Your task to perform on an android device: toggle translation in the chrome app Image 0: 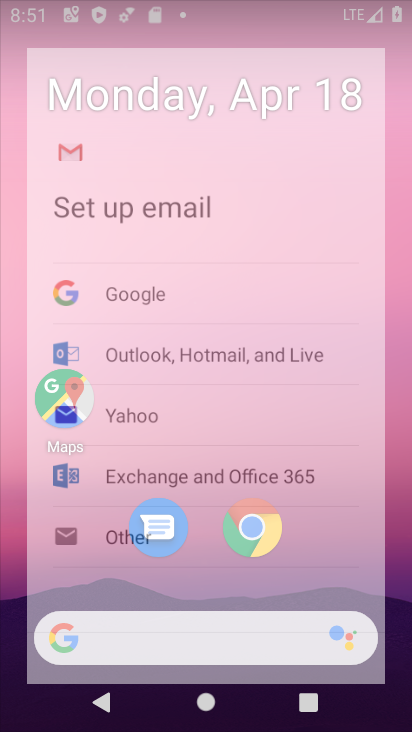
Step 0: drag from (328, 446) to (281, 47)
Your task to perform on an android device: toggle translation in the chrome app Image 1: 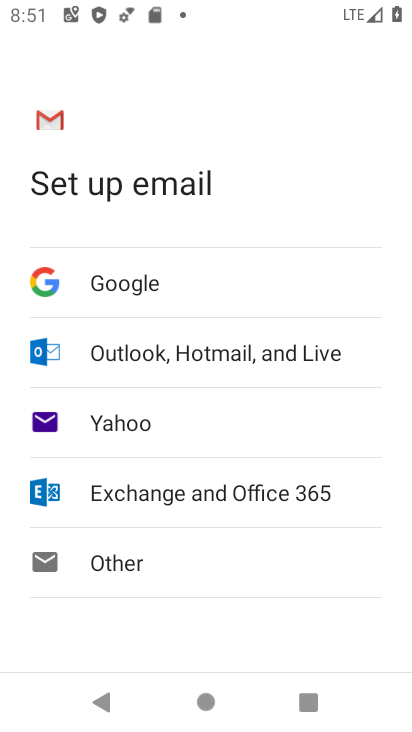
Step 1: press back button
Your task to perform on an android device: toggle translation in the chrome app Image 2: 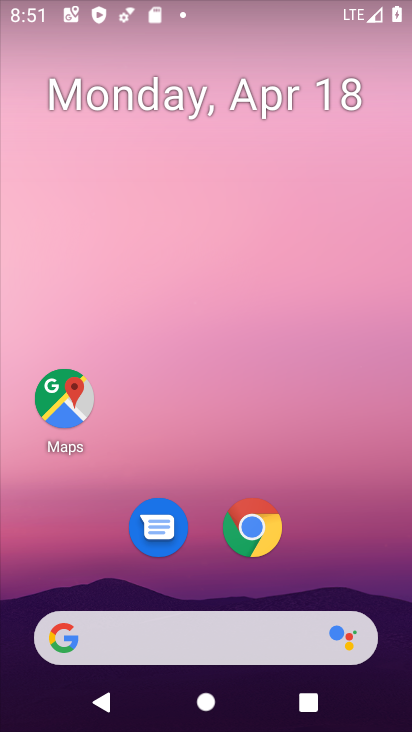
Step 2: click (256, 525)
Your task to perform on an android device: toggle translation in the chrome app Image 3: 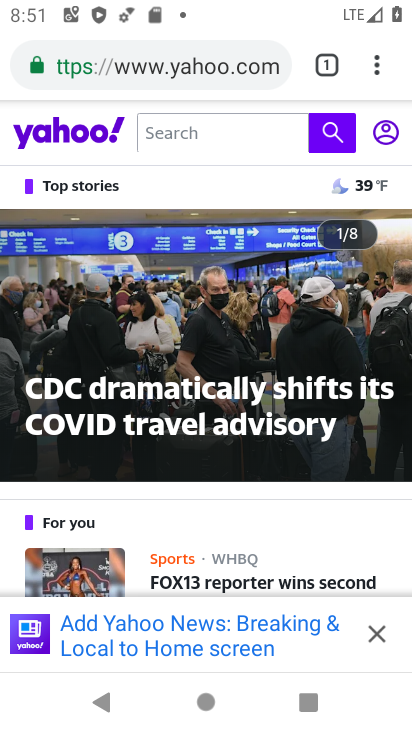
Step 3: click (375, 69)
Your task to perform on an android device: toggle translation in the chrome app Image 4: 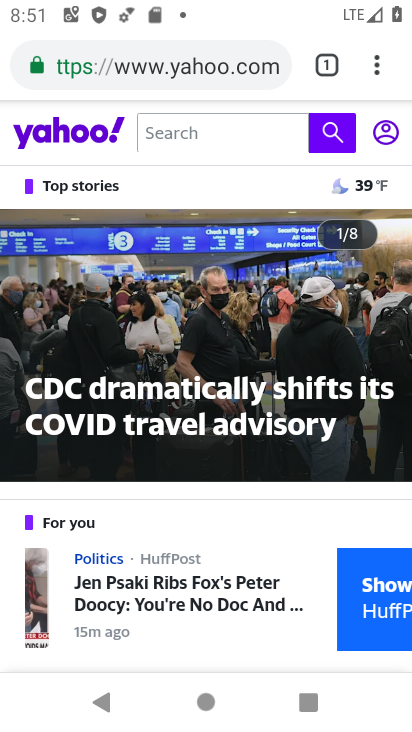
Step 4: drag from (381, 65) to (186, 576)
Your task to perform on an android device: toggle translation in the chrome app Image 5: 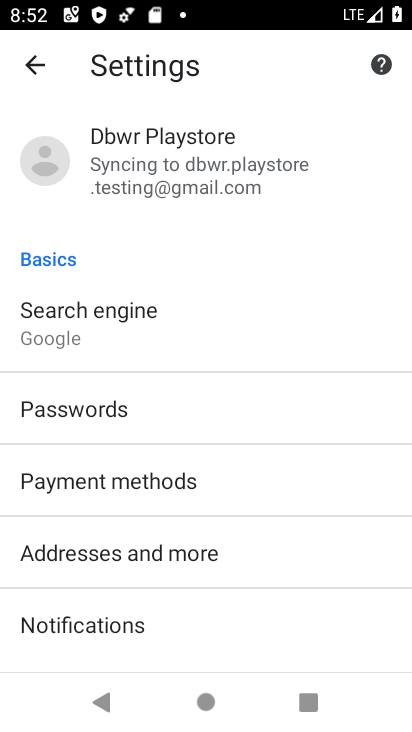
Step 5: drag from (259, 596) to (268, 186)
Your task to perform on an android device: toggle translation in the chrome app Image 6: 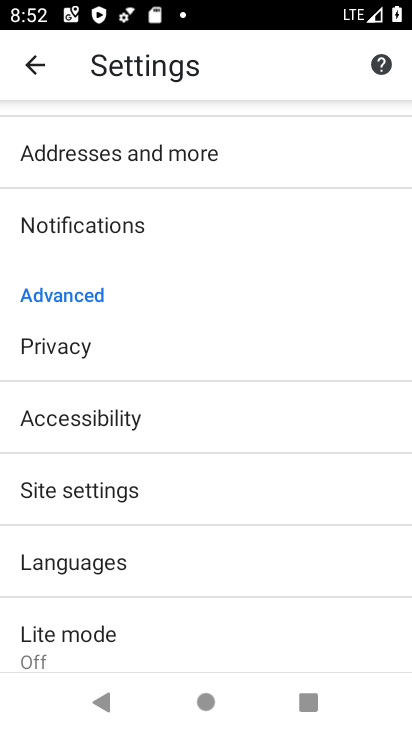
Step 6: click (142, 557)
Your task to perform on an android device: toggle translation in the chrome app Image 7: 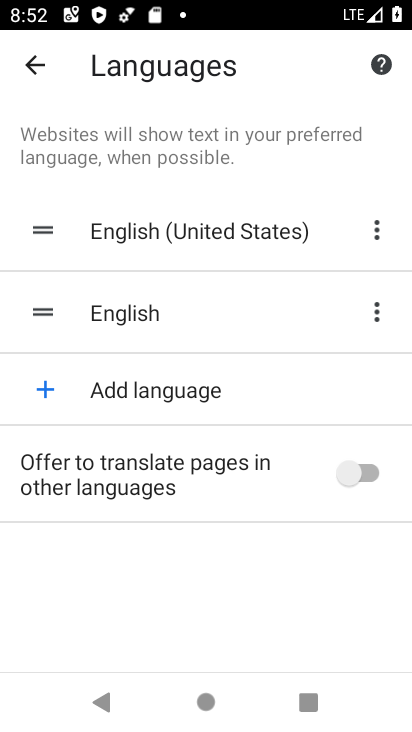
Step 7: click (368, 464)
Your task to perform on an android device: toggle translation in the chrome app Image 8: 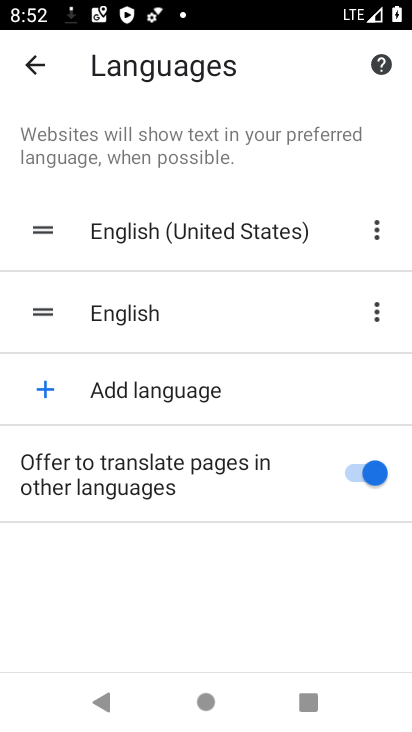
Step 8: task complete